Your task to perform on an android device: change the clock display to analog Image 0: 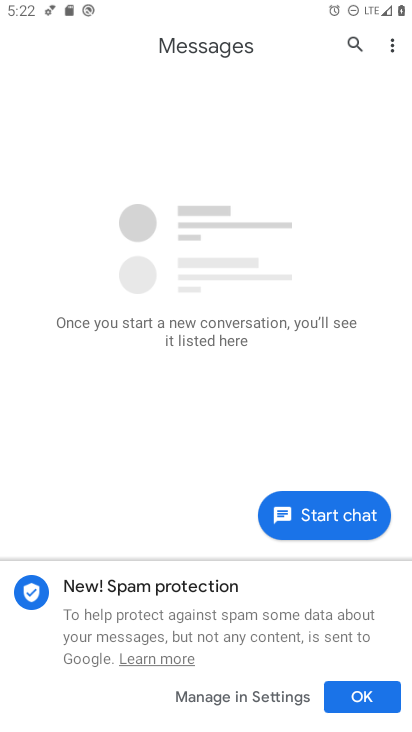
Step 0: press home button
Your task to perform on an android device: change the clock display to analog Image 1: 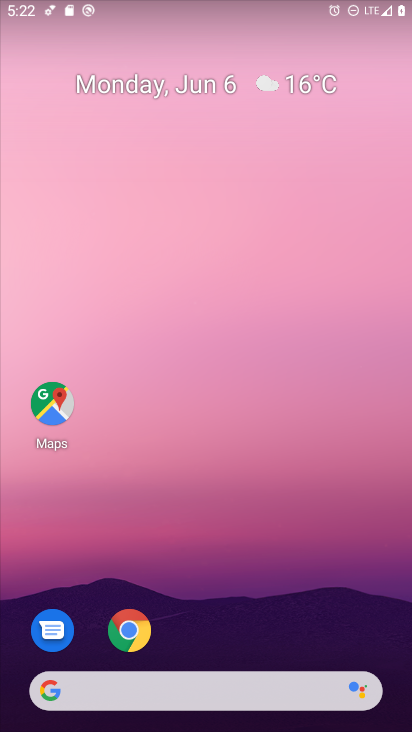
Step 1: drag from (291, 530) to (180, 1)
Your task to perform on an android device: change the clock display to analog Image 2: 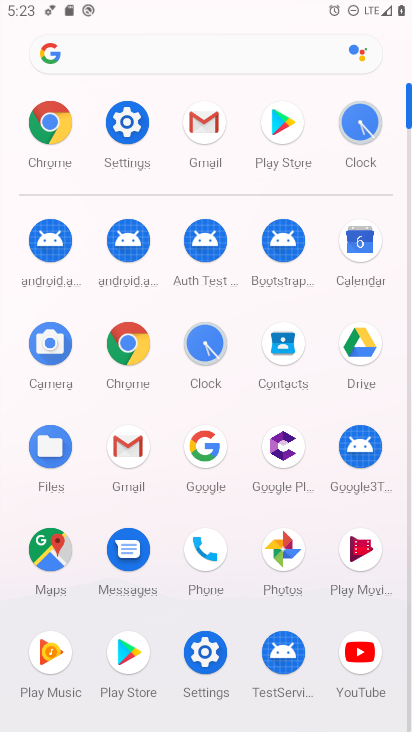
Step 2: click (202, 337)
Your task to perform on an android device: change the clock display to analog Image 3: 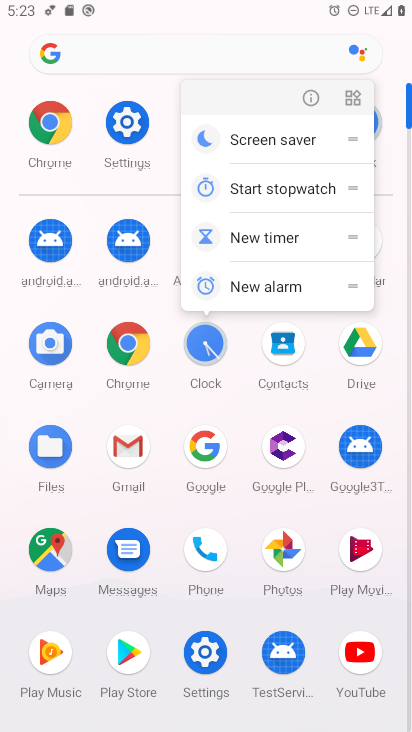
Step 3: click (191, 347)
Your task to perform on an android device: change the clock display to analog Image 4: 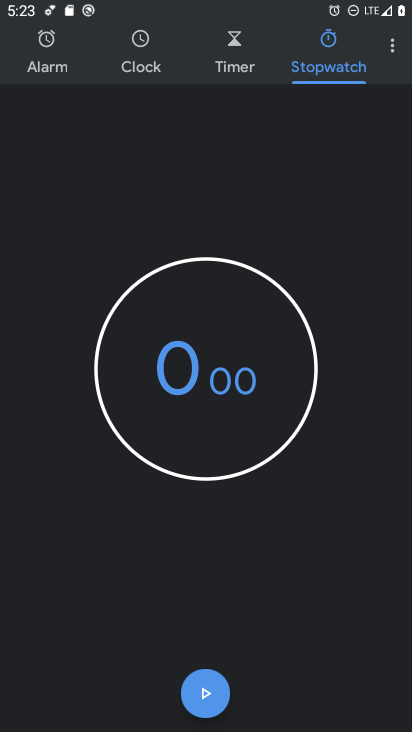
Step 4: click (385, 50)
Your task to perform on an android device: change the clock display to analog Image 5: 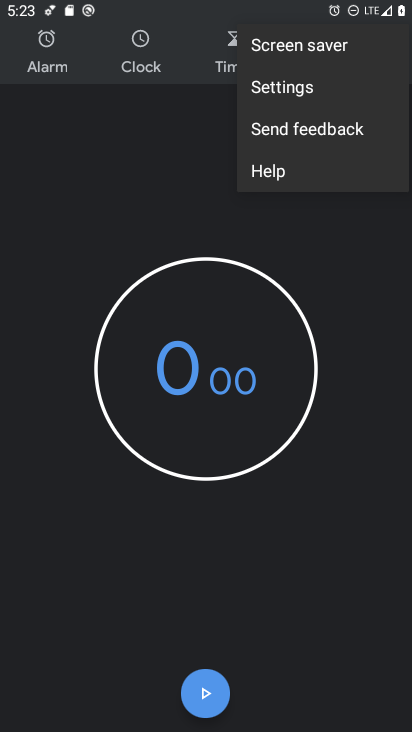
Step 5: click (274, 95)
Your task to perform on an android device: change the clock display to analog Image 6: 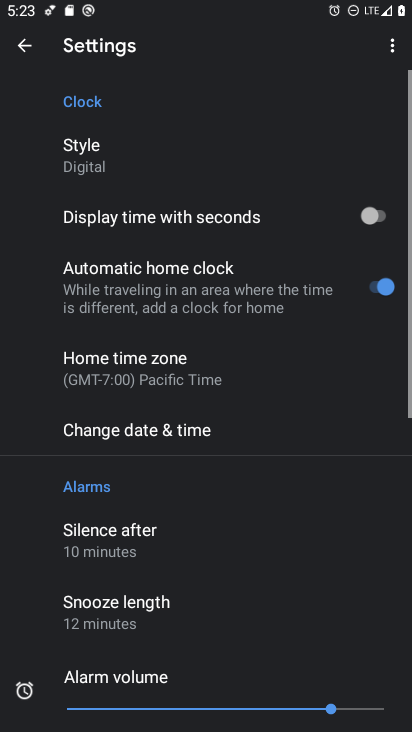
Step 6: click (130, 172)
Your task to perform on an android device: change the clock display to analog Image 7: 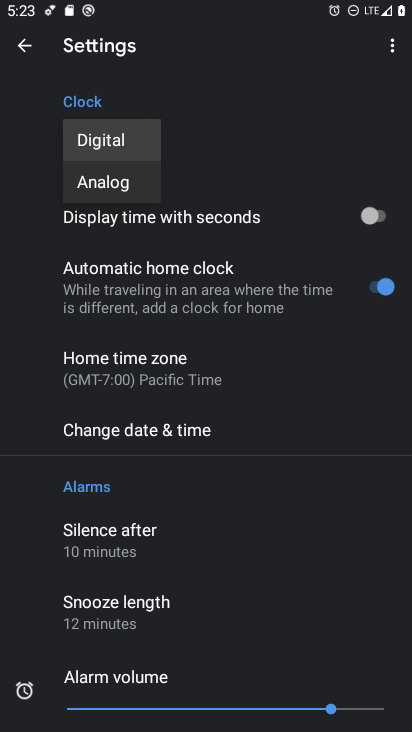
Step 7: click (149, 178)
Your task to perform on an android device: change the clock display to analog Image 8: 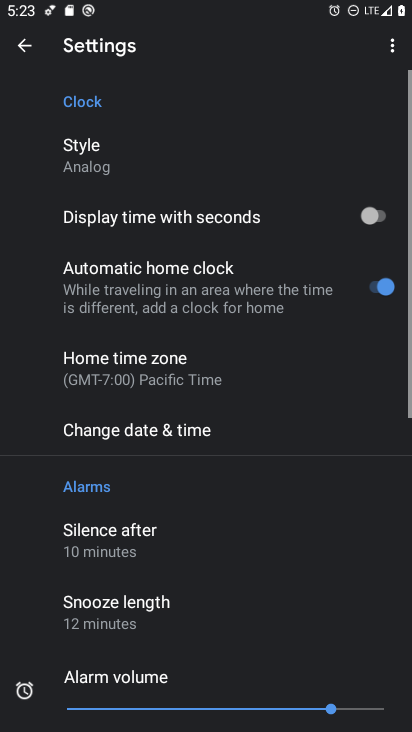
Step 8: task complete